Your task to perform on an android device: Is it going to rain tomorrow? Image 0: 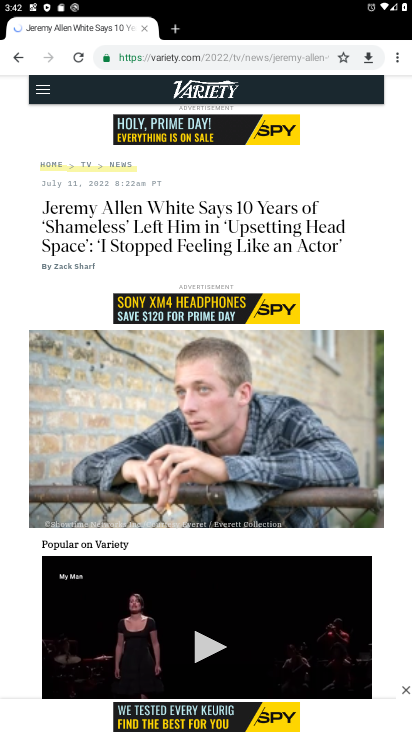
Step 0: press home button
Your task to perform on an android device: Is it going to rain tomorrow? Image 1: 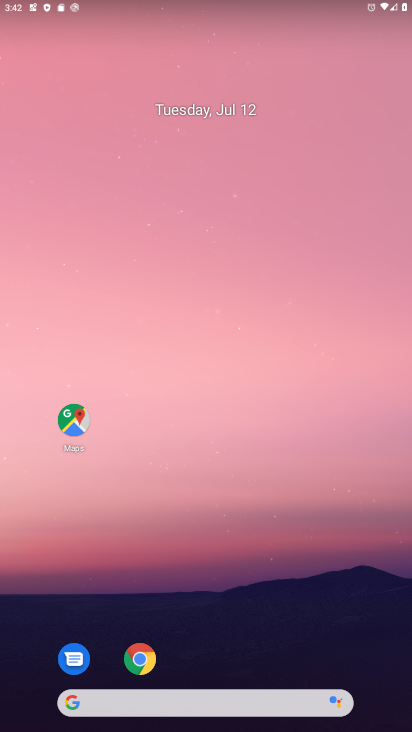
Step 1: drag from (207, 371) to (230, 4)
Your task to perform on an android device: Is it going to rain tomorrow? Image 2: 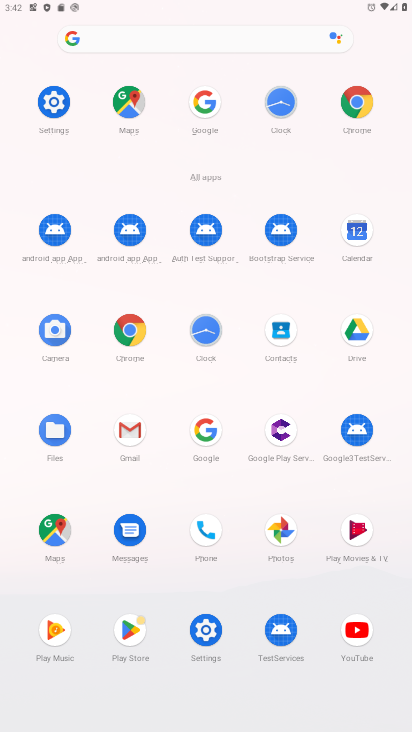
Step 2: click (205, 435)
Your task to perform on an android device: Is it going to rain tomorrow? Image 3: 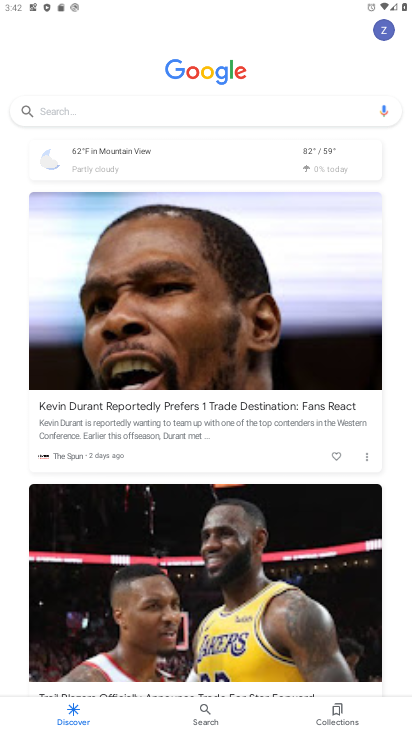
Step 3: click (97, 110)
Your task to perform on an android device: Is it going to rain tomorrow? Image 4: 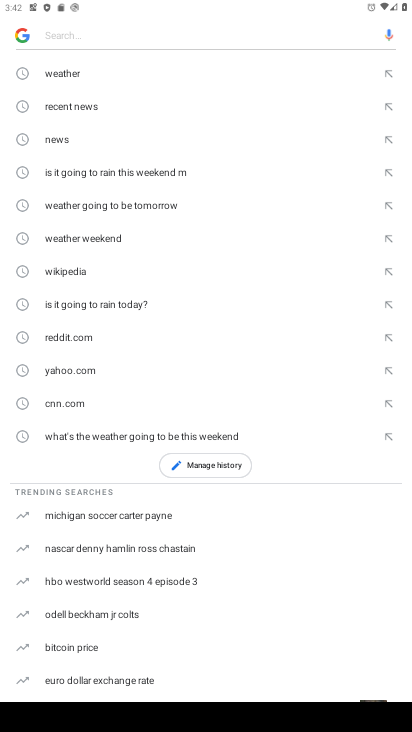
Step 4: click (75, 76)
Your task to perform on an android device: Is it going to rain tomorrow? Image 5: 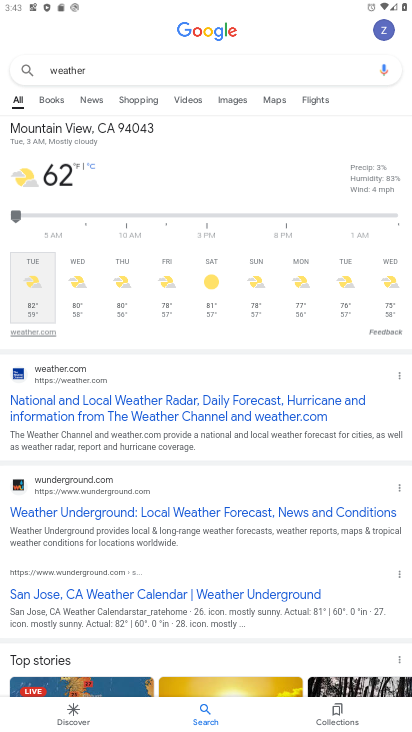
Step 5: click (369, 169)
Your task to perform on an android device: Is it going to rain tomorrow? Image 6: 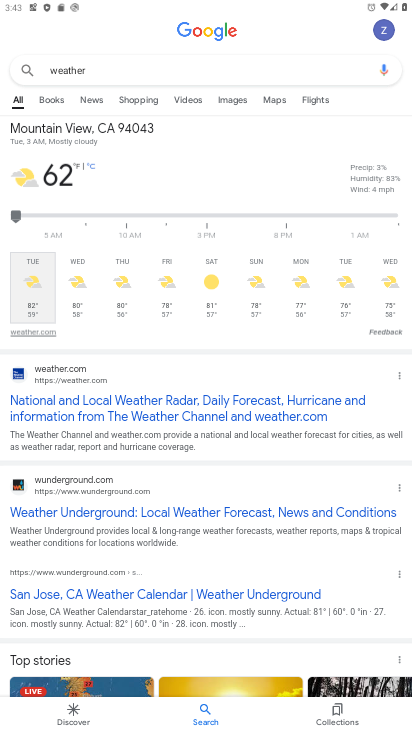
Step 6: click (89, 172)
Your task to perform on an android device: Is it going to rain tomorrow? Image 7: 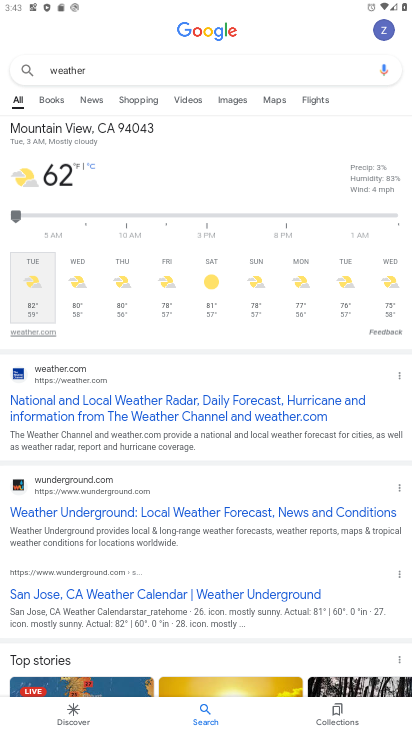
Step 7: click (89, 172)
Your task to perform on an android device: Is it going to rain tomorrow? Image 8: 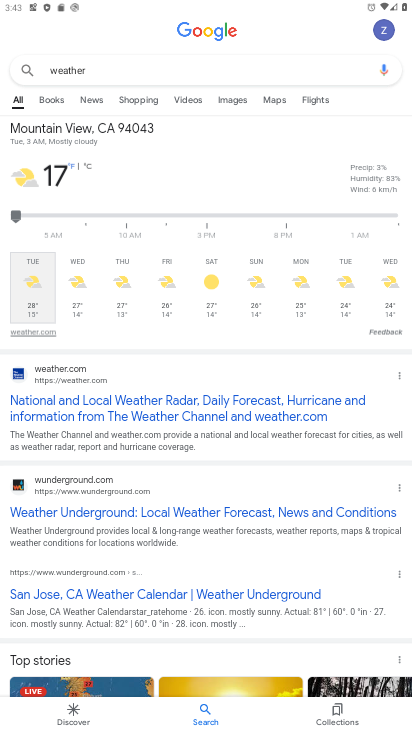
Step 8: click (38, 339)
Your task to perform on an android device: Is it going to rain tomorrow? Image 9: 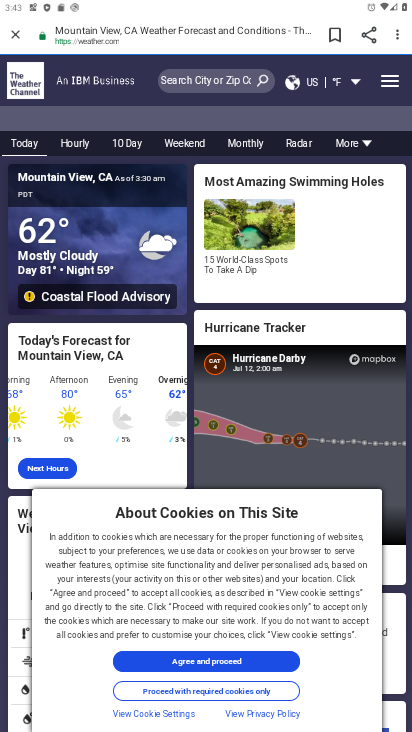
Step 9: click (127, 146)
Your task to perform on an android device: Is it going to rain tomorrow? Image 10: 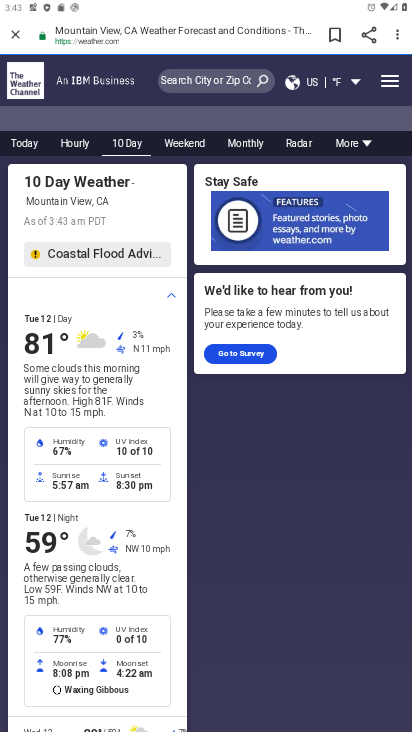
Step 10: task complete